Your task to perform on an android device: change the clock display to analog Image 0: 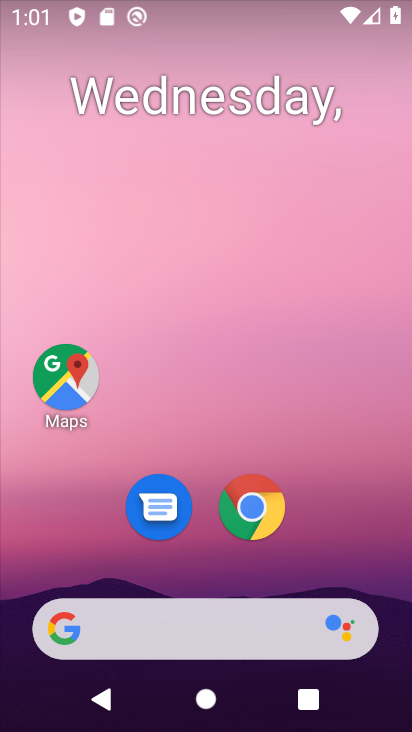
Step 0: drag from (355, 522) to (407, 192)
Your task to perform on an android device: change the clock display to analog Image 1: 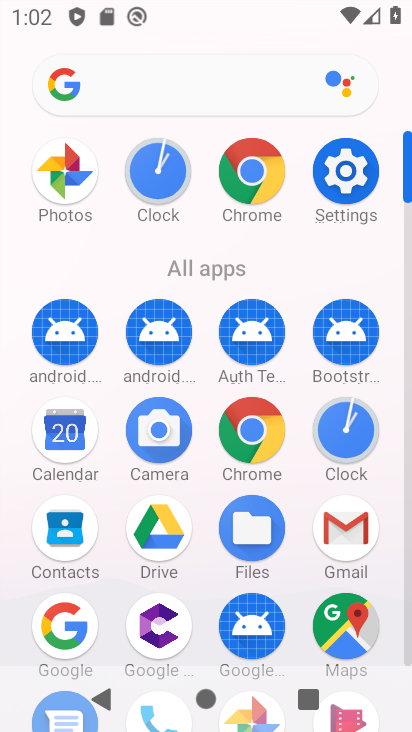
Step 1: click (161, 166)
Your task to perform on an android device: change the clock display to analog Image 2: 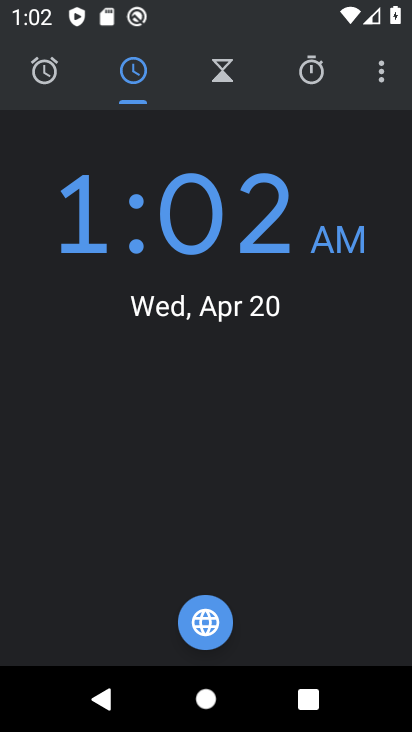
Step 2: click (379, 82)
Your task to perform on an android device: change the clock display to analog Image 3: 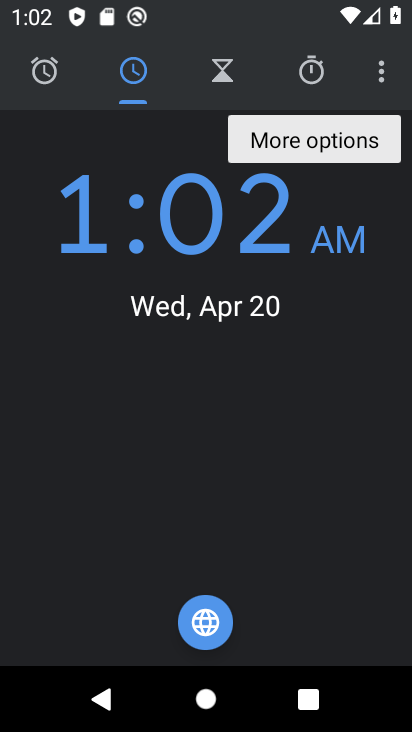
Step 3: click (379, 81)
Your task to perform on an android device: change the clock display to analog Image 4: 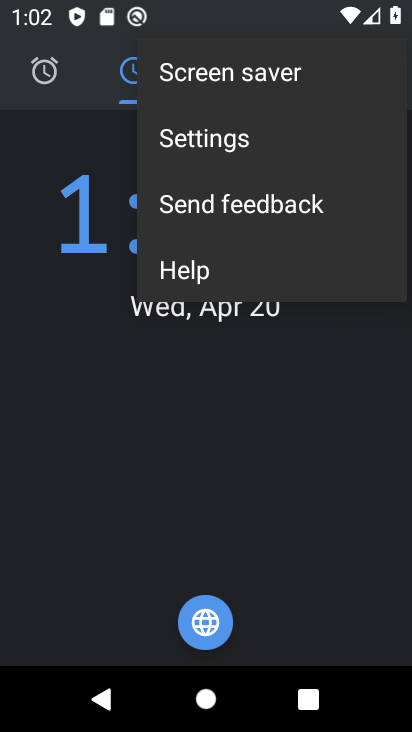
Step 4: click (238, 138)
Your task to perform on an android device: change the clock display to analog Image 5: 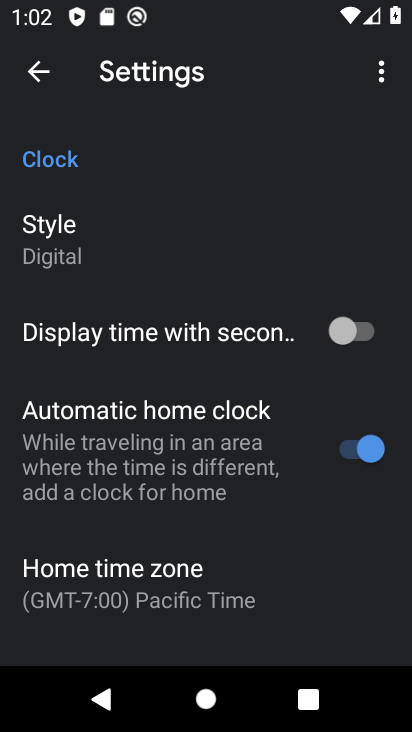
Step 5: click (60, 244)
Your task to perform on an android device: change the clock display to analog Image 6: 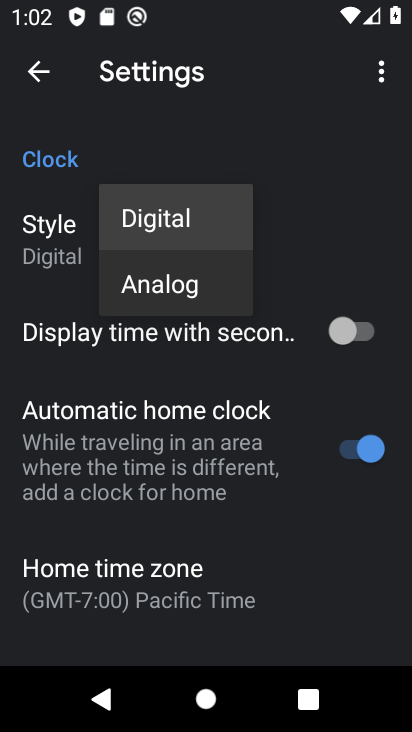
Step 6: click (139, 292)
Your task to perform on an android device: change the clock display to analog Image 7: 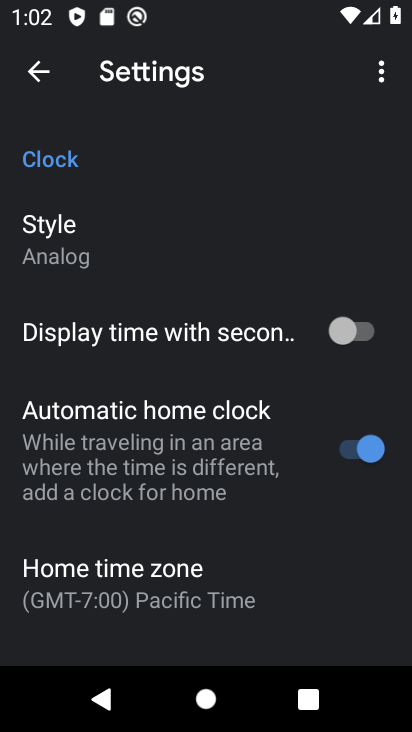
Step 7: task complete